Your task to perform on an android device: turn off translation in the chrome app Image 0: 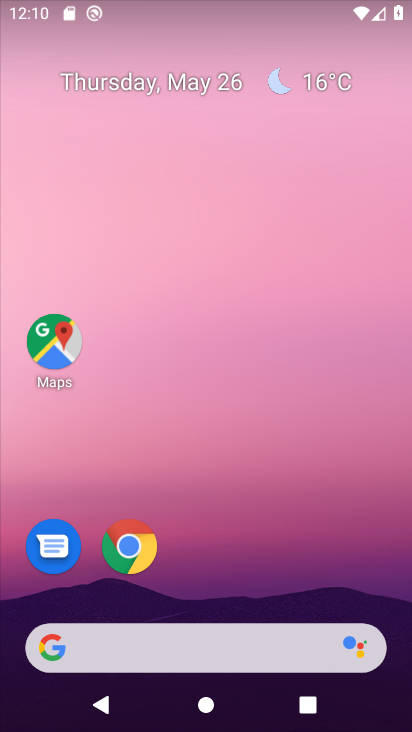
Step 0: click (126, 545)
Your task to perform on an android device: turn off translation in the chrome app Image 1: 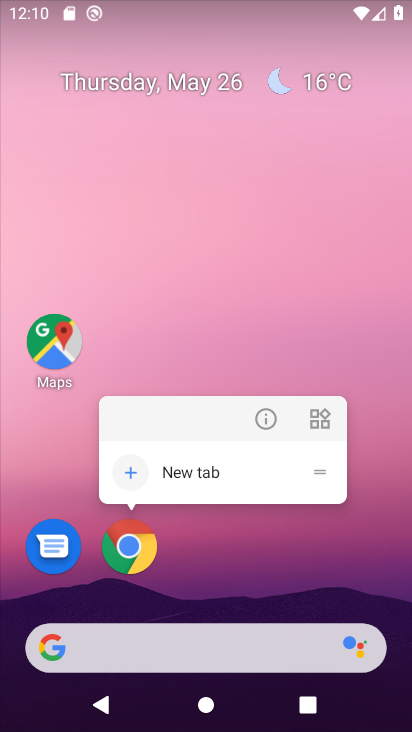
Step 1: click (130, 545)
Your task to perform on an android device: turn off translation in the chrome app Image 2: 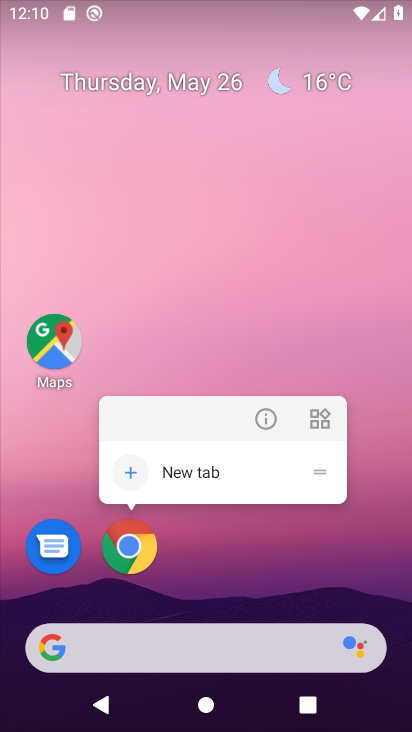
Step 2: click (130, 545)
Your task to perform on an android device: turn off translation in the chrome app Image 3: 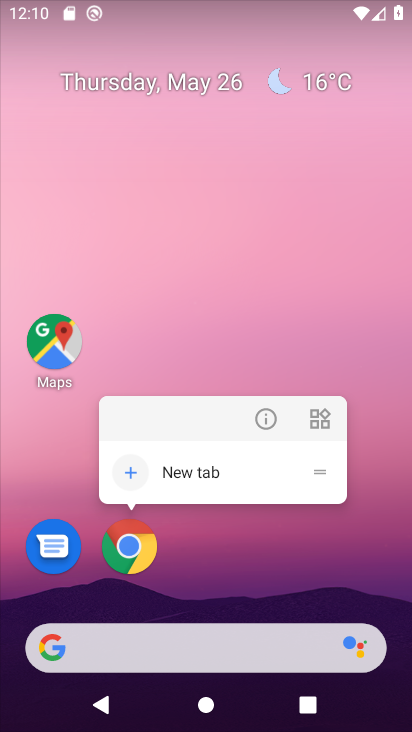
Step 3: click (125, 549)
Your task to perform on an android device: turn off translation in the chrome app Image 4: 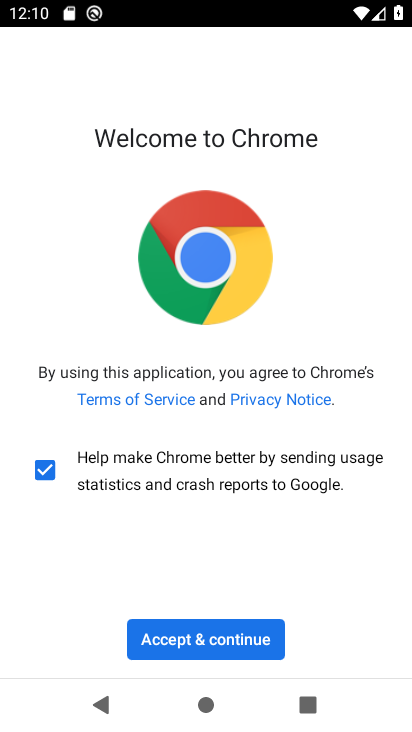
Step 4: click (199, 646)
Your task to perform on an android device: turn off translation in the chrome app Image 5: 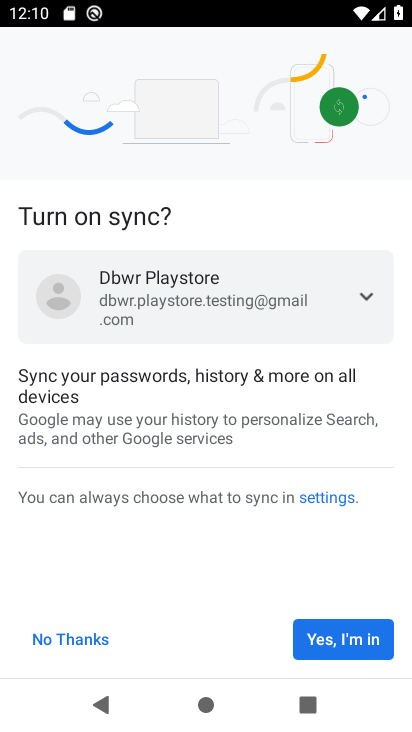
Step 5: click (341, 634)
Your task to perform on an android device: turn off translation in the chrome app Image 6: 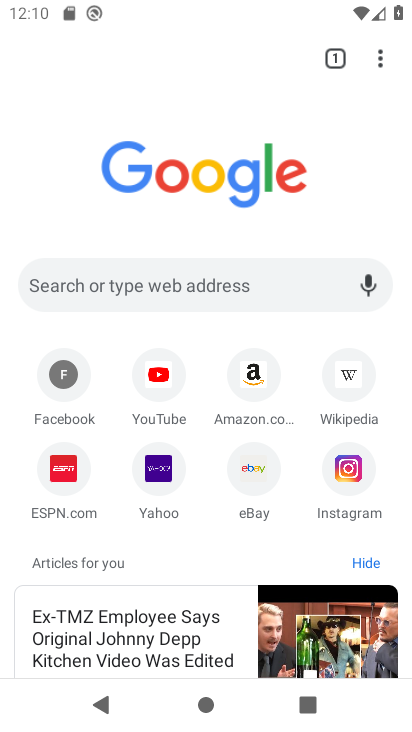
Step 6: click (379, 62)
Your task to perform on an android device: turn off translation in the chrome app Image 7: 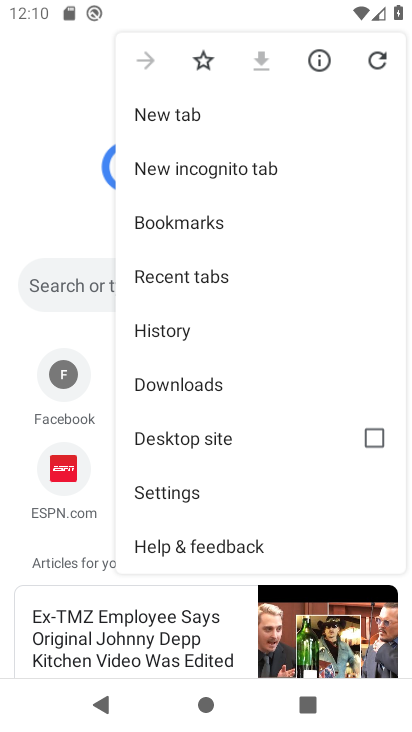
Step 7: click (184, 495)
Your task to perform on an android device: turn off translation in the chrome app Image 8: 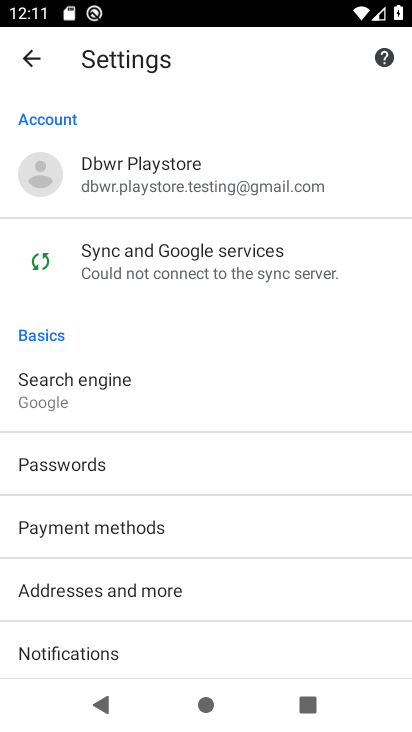
Step 8: drag from (170, 625) to (185, 260)
Your task to perform on an android device: turn off translation in the chrome app Image 9: 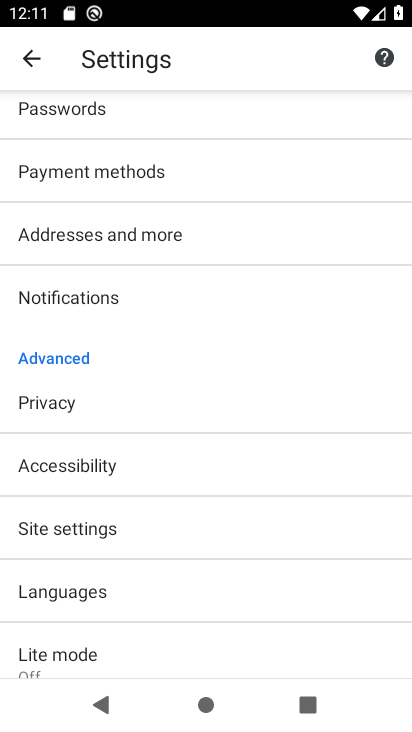
Step 9: click (88, 595)
Your task to perform on an android device: turn off translation in the chrome app Image 10: 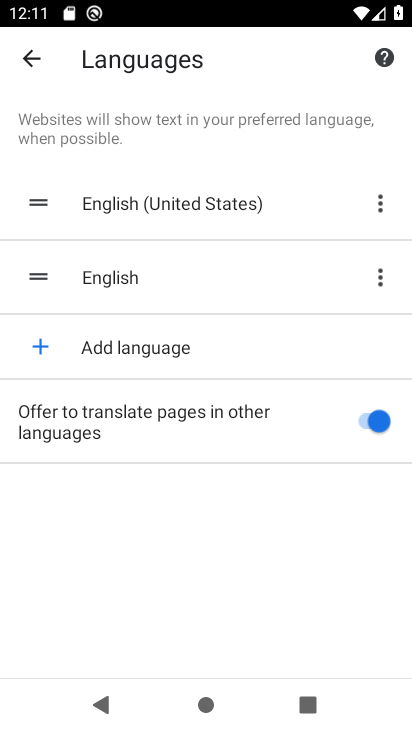
Step 10: click (357, 421)
Your task to perform on an android device: turn off translation in the chrome app Image 11: 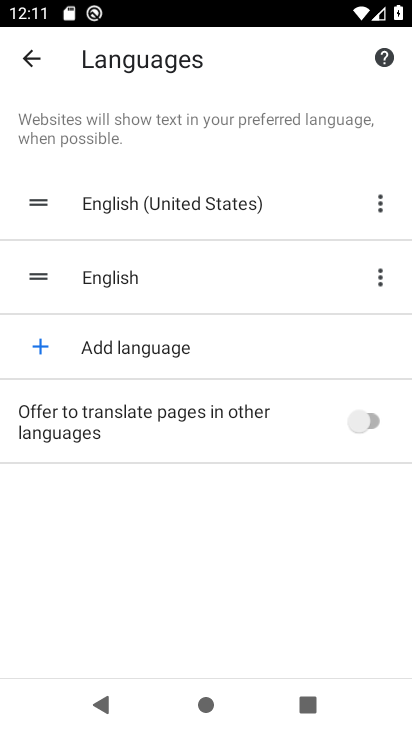
Step 11: task complete